Your task to perform on an android device: Open settings on Google Maps Image 0: 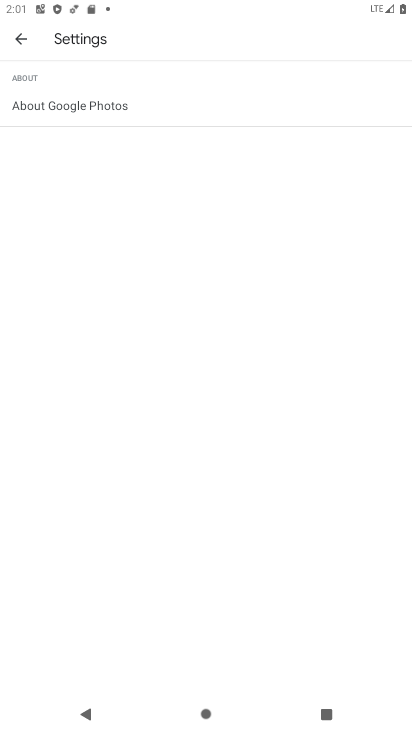
Step 0: press home button
Your task to perform on an android device: Open settings on Google Maps Image 1: 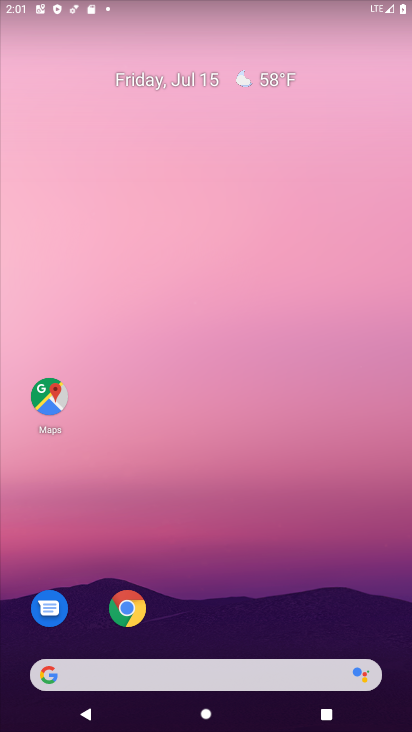
Step 1: drag from (212, 591) to (213, 69)
Your task to perform on an android device: Open settings on Google Maps Image 2: 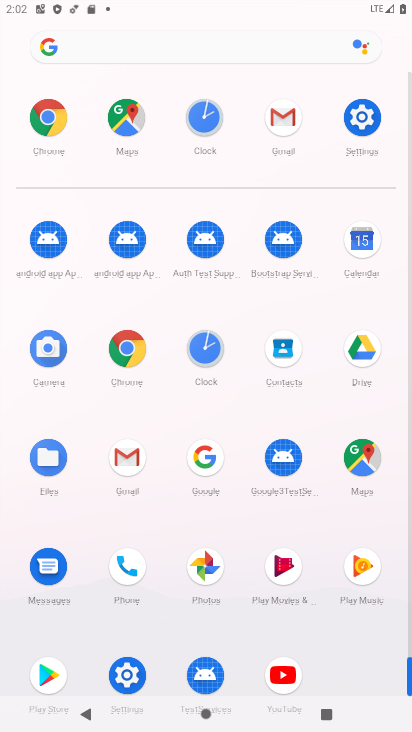
Step 2: click (352, 464)
Your task to perform on an android device: Open settings on Google Maps Image 3: 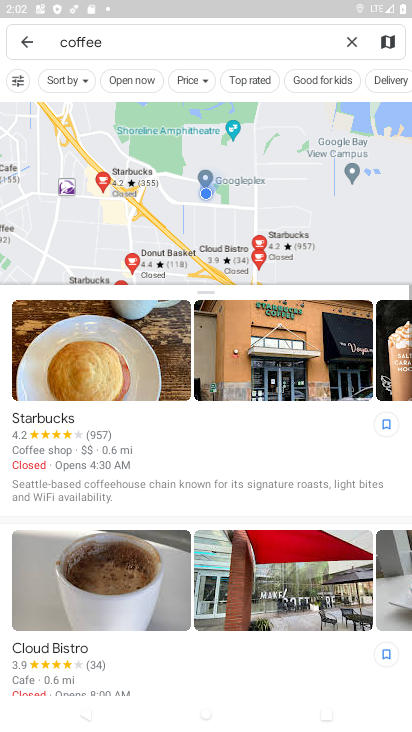
Step 3: click (21, 40)
Your task to perform on an android device: Open settings on Google Maps Image 4: 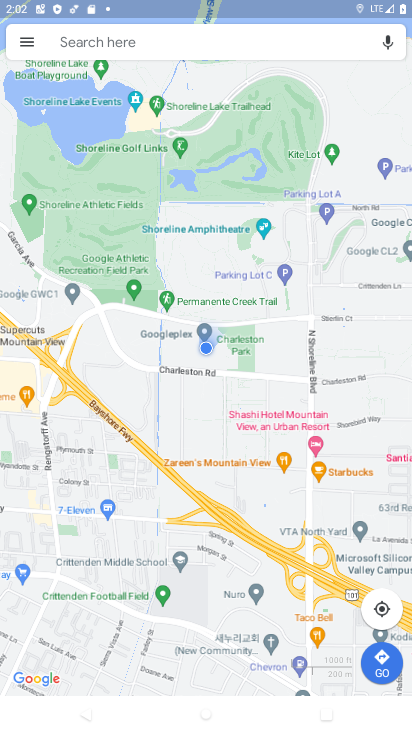
Step 4: click (23, 41)
Your task to perform on an android device: Open settings on Google Maps Image 5: 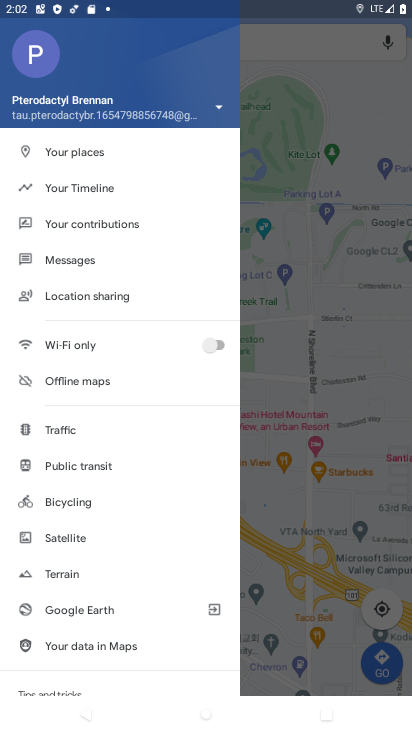
Step 5: drag from (173, 623) to (170, 226)
Your task to perform on an android device: Open settings on Google Maps Image 6: 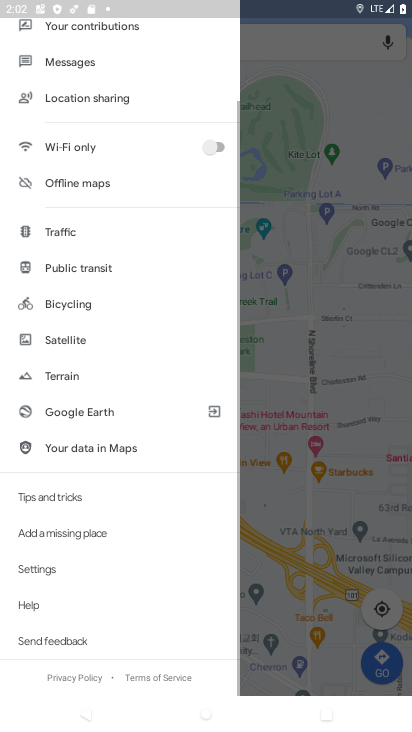
Step 6: click (46, 564)
Your task to perform on an android device: Open settings on Google Maps Image 7: 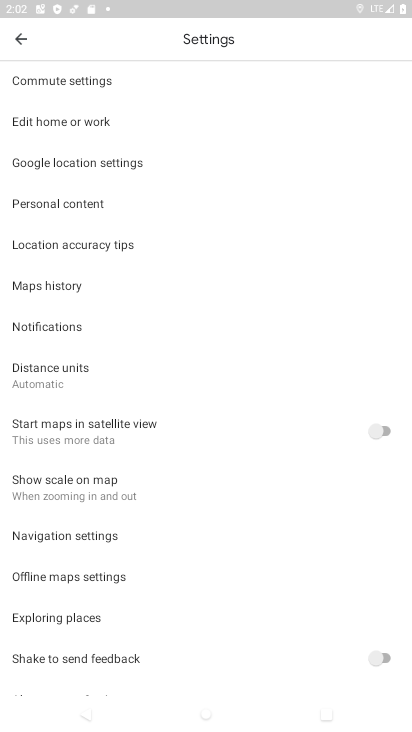
Step 7: task complete